Your task to perform on an android device: Do I have any events this weekend? Image 0: 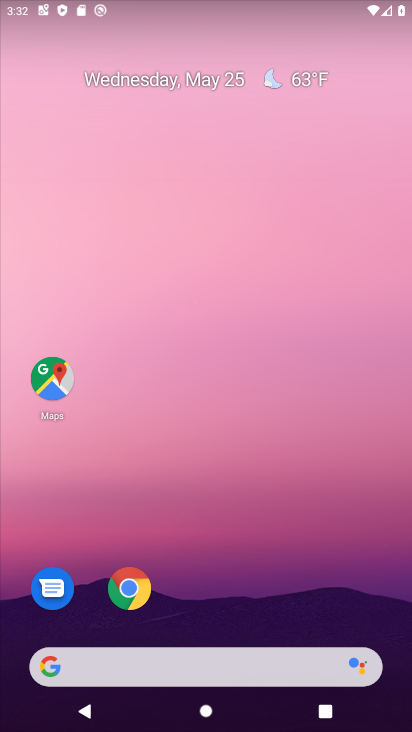
Step 0: drag from (228, 608) to (116, 93)
Your task to perform on an android device: Do I have any events this weekend? Image 1: 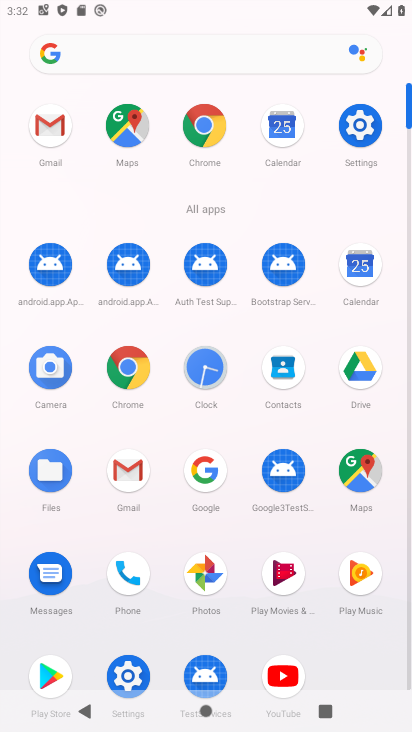
Step 1: click (354, 272)
Your task to perform on an android device: Do I have any events this weekend? Image 2: 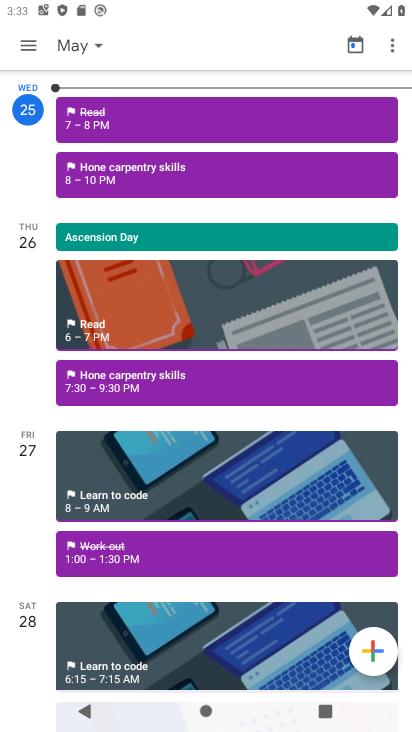
Step 2: click (30, 49)
Your task to perform on an android device: Do I have any events this weekend? Image 3: 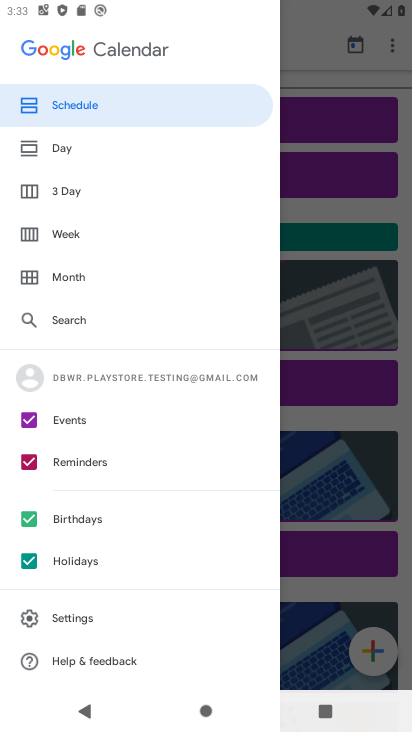
Step 3: click (26, 562)
Your task to perform on an android device: Do I have any events this weekend? Image 4: 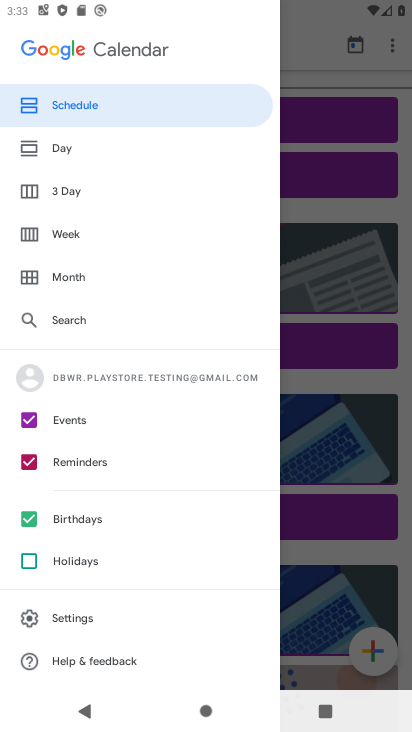
Step 4: click (24, 519)
Your task to perform on an android device: Do I have any events this weekend? Image 5: 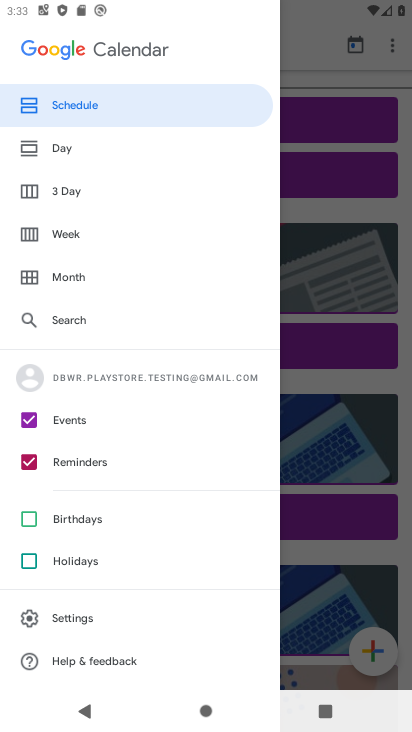
Step 5: click (24, 461)
Your task to perform on an android device: Do I have any events this weekend? Image 6: 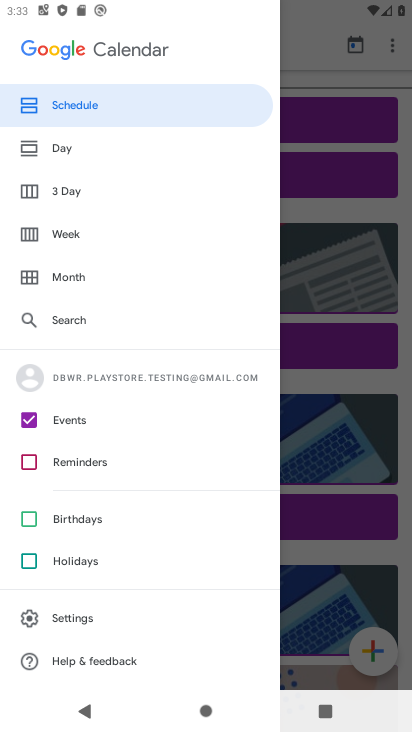
Step 6: click (47, 186)
Your task to perform on an android device: Do I have any events this weekend? Image 7: 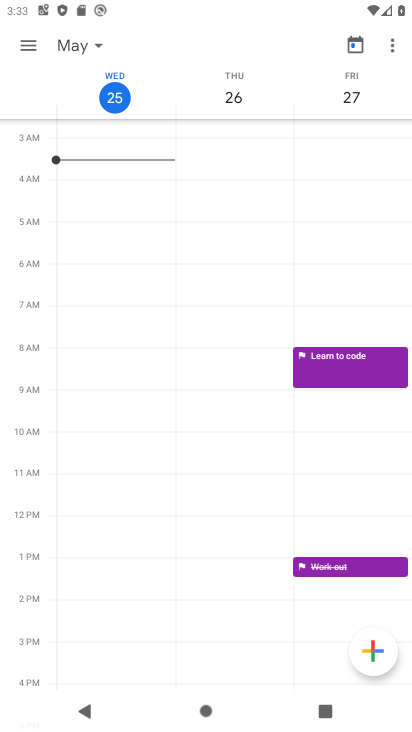
Step 7: click (87, 48)
Your task to perform on an android device: Do I have any events this weekend? Image 8: 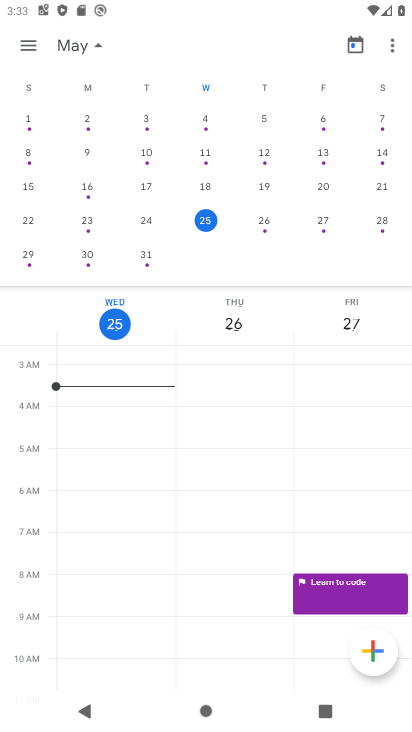
Step 8: click (385, 224)
Your task to perform on an android device: Do I have any events this weekend? Image 9: 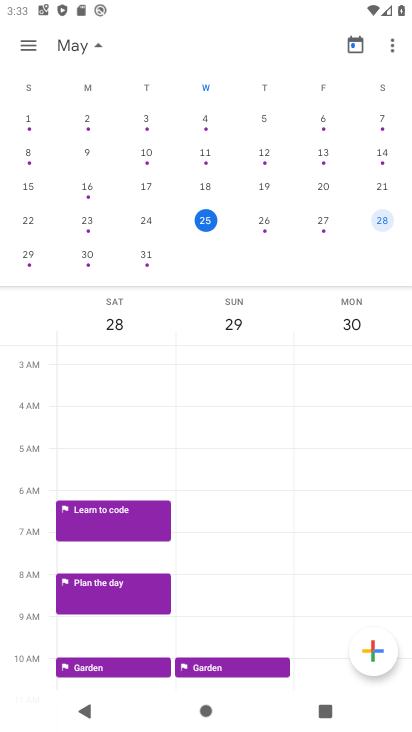
Step 9: task complete